Your task to perform on an android device: change notification settings in the gmail app Image 0: 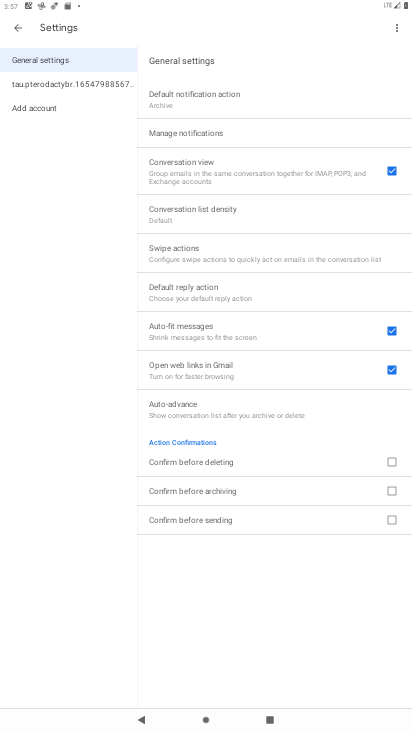
Step 0: press home button
Your task to perform on an android device: change notification settings in the gmail app Image 1: 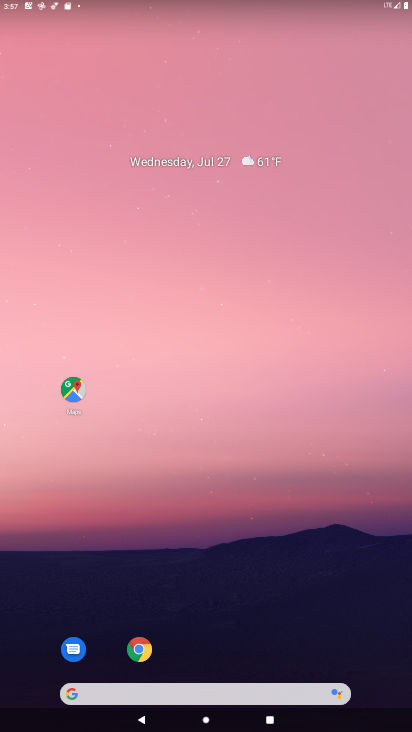
Step 1: drag from (208, 588) to (268, 69)
Your task to perform on an android device: change notification settings in the gmail app Image 2: 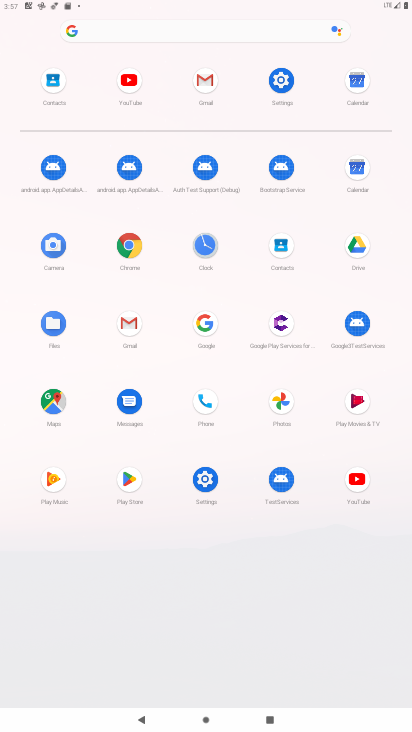
Step 2: click (137, 325)
Your task to perform on an android device: change notification settings in the gmail app Image 3: 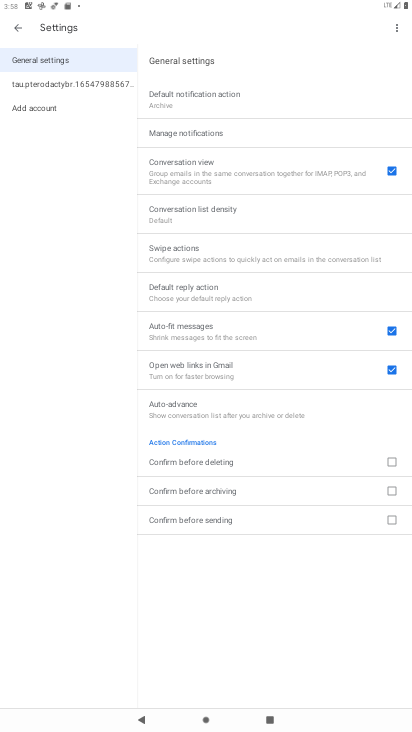
Step 3: click (88, 86)
Your task to perform on an android device: change notification settings in the gmail app Image 4: 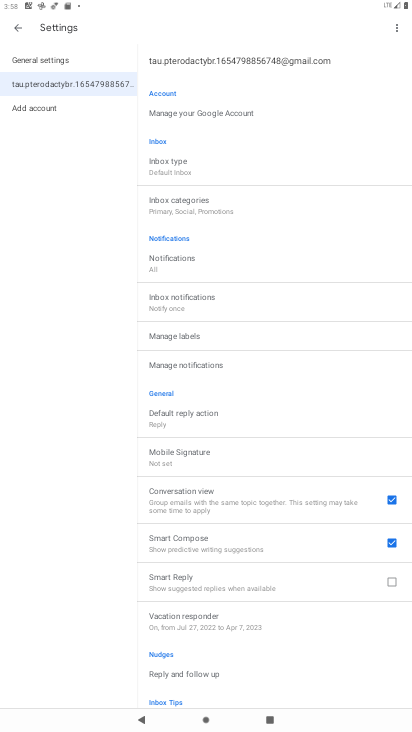
Step 4: click (198, 368)
Your task to perform on an android device: change notification settings in the gmail app Image 5: 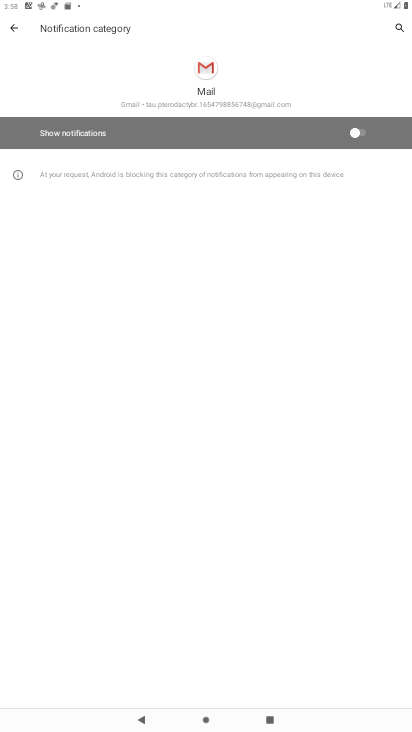
Step 5: click (363, 142)
Your task to perform on an android device: change notification settings in the gmail app Image 6: 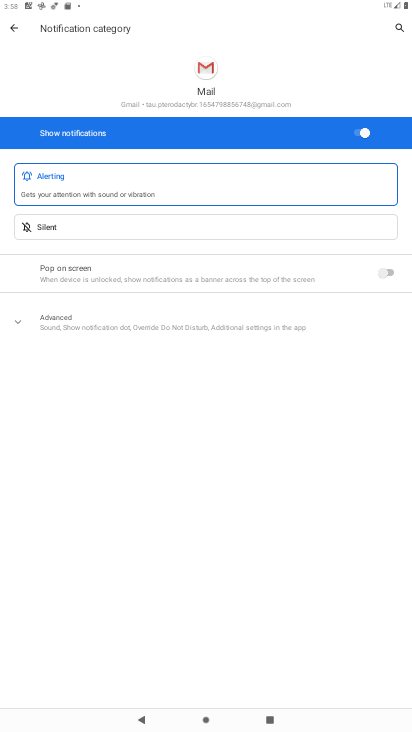
Step 6: task complete